Your task to perform on an android device: see creations saved in the google photos Image 0: 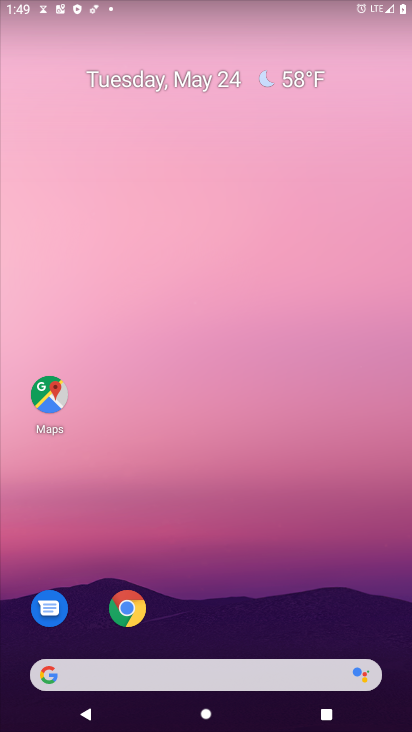
Step 0: drag from (261, 695) to (191, 62)
Your task to perform on an android device: see creations saved in the google photos Image 1: 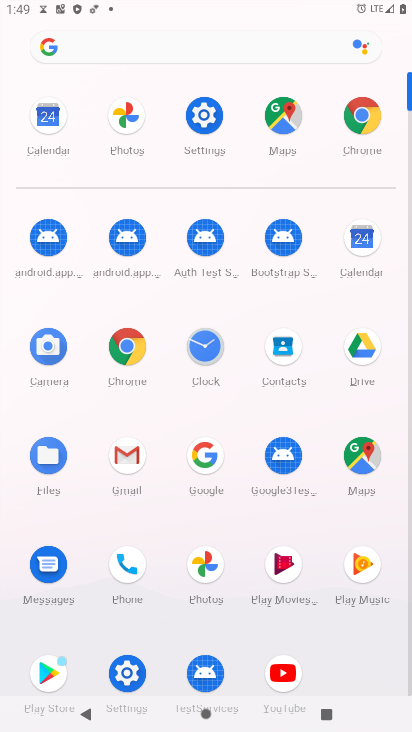
Step 1: click (216, 575)
Your task to perform on an android device: see creations saved in the google photos Image 2: 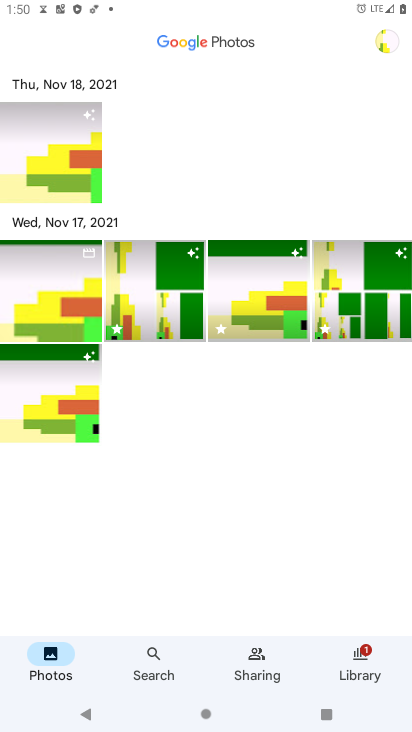
Step 2: click (248, 296)
Your task to perform on an android device: see creations saved in the google photos Image 3: 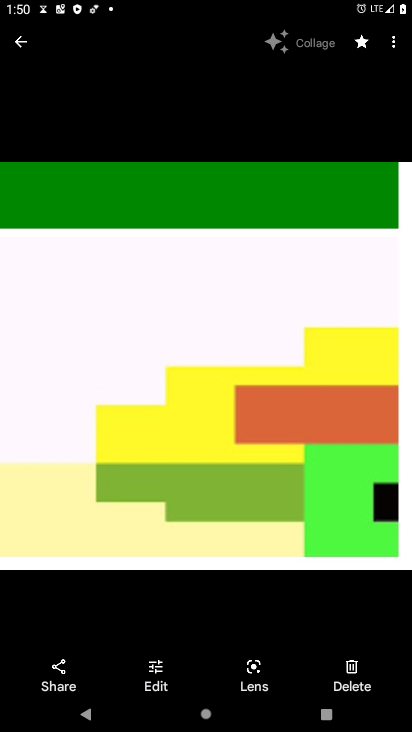
Step 3: click (398, 48)
Your task to perform on an android device: see creations saved in the google photos Image 4: 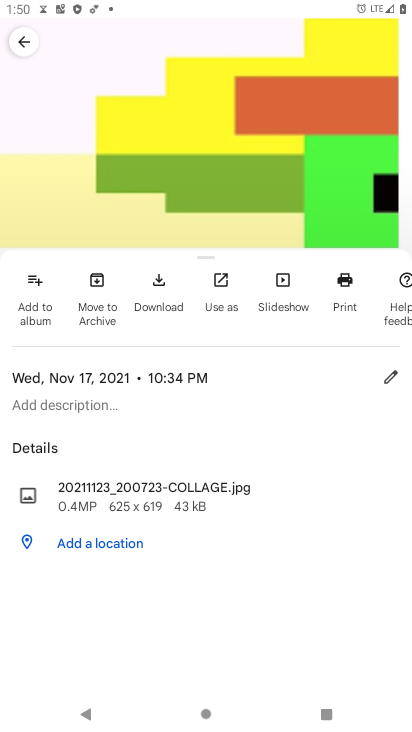
Step 4: task complete